Your task to perform on an android device: set an alarm Image 0: 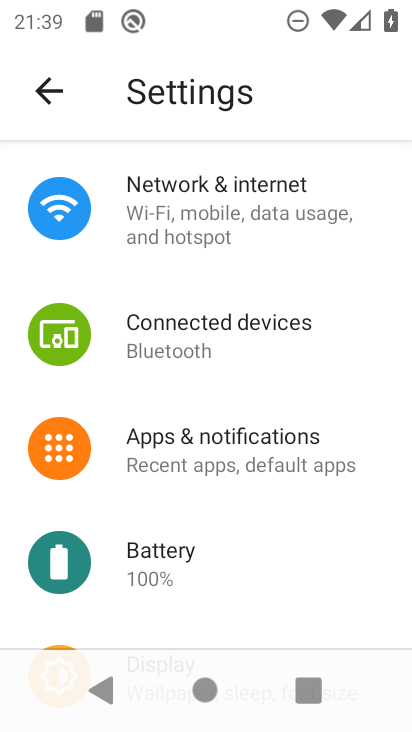
Step 0: press home button
Your task to perform on an android device: set an alarm Image 1: 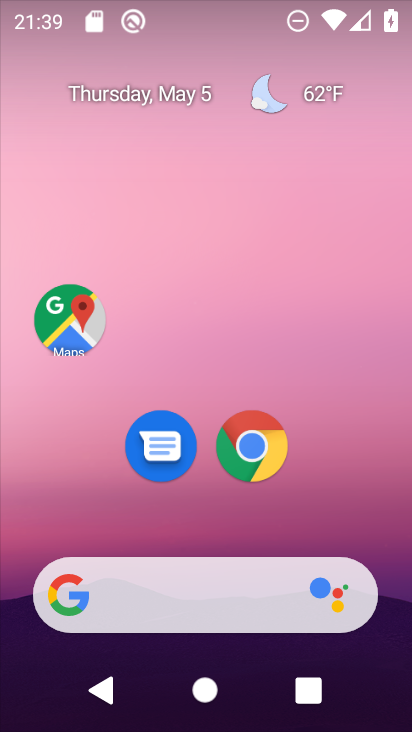
Step 1: drag from (216, 648) to (187, 376)
Your task to perform on an android device: set an alarm Image 2: 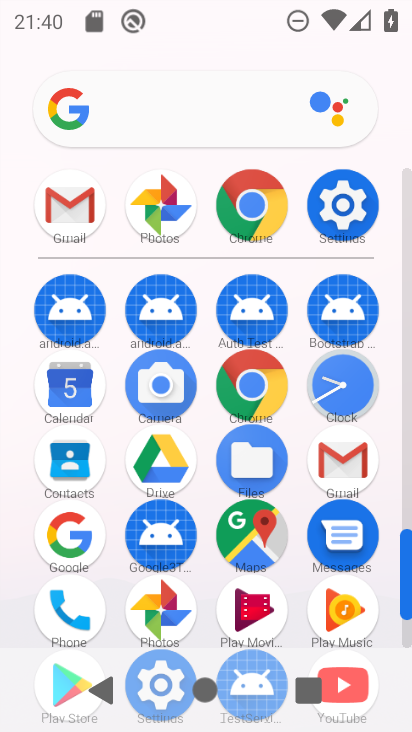
Step 2: click (340, 376)
Your task to perform on an android device: set an alarm Image 3: 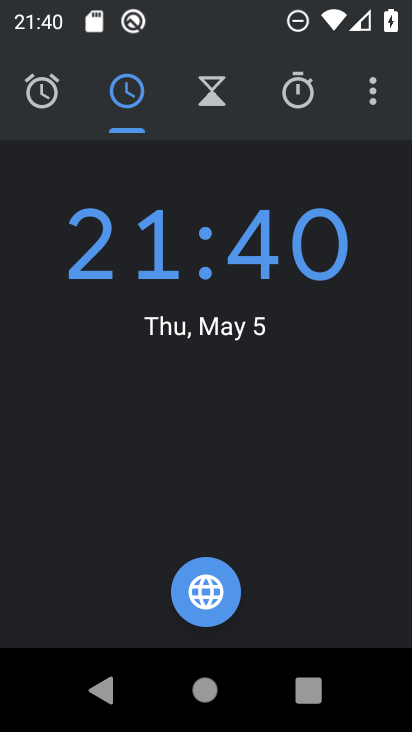
Step 3: click (370, 110)
Your task to perform on an android device: set an alarm Image 4: 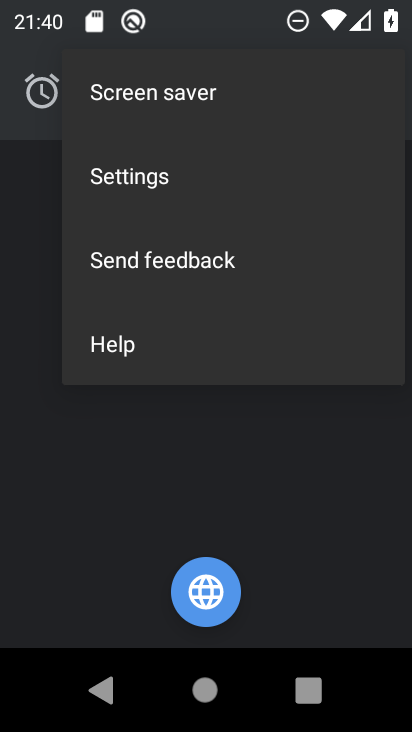
Step 4: click (55, 87)
Your task to perform on an android device: set an alarm Image 5: 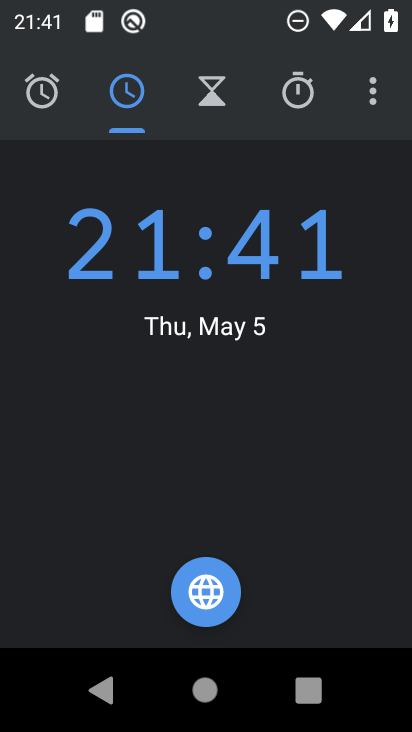
Step 5: click (63, 91)
Your task to perform on an android device: set an alarm Image 6: 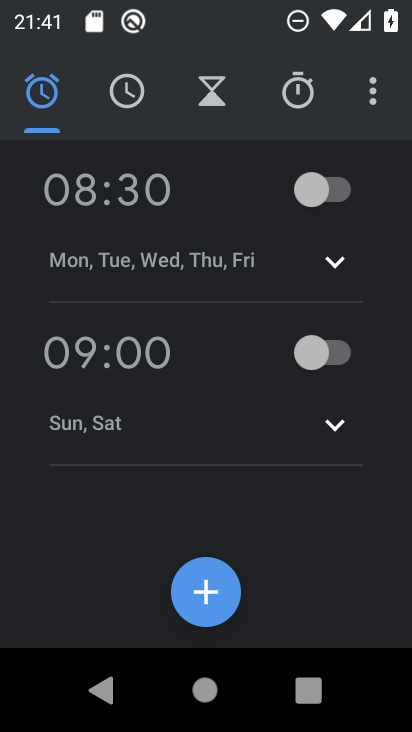
Step 6: click (281, 192)
Your task to perform on an android device: set an alarm Image 7: 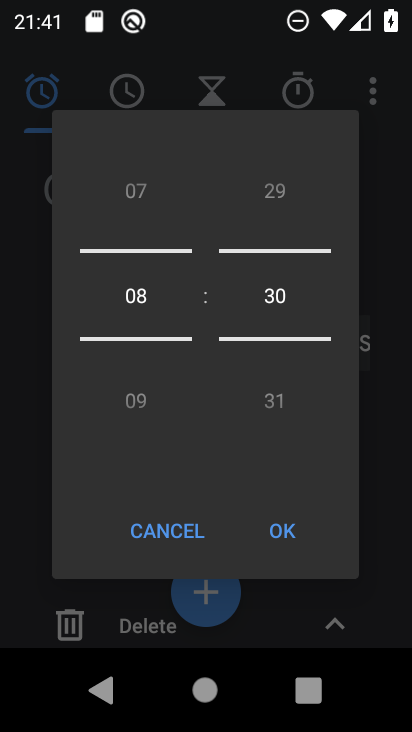
Step 7: click (290, 540)
Your task to perform on an android device: set an alarm Image 8: 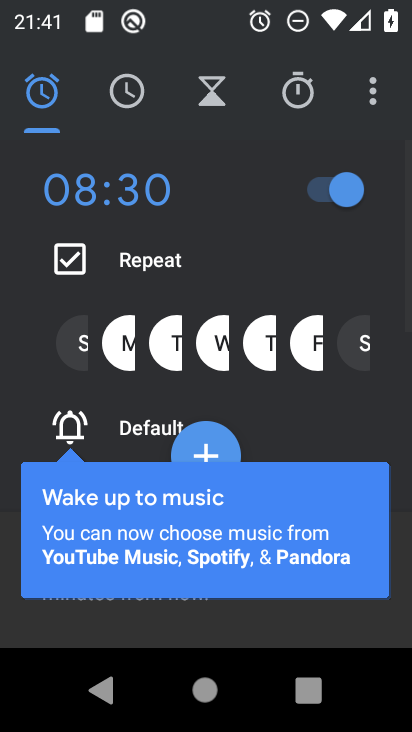
Step 8: task complete